Your task to perform on an android device: read, delete, or share a saved page in the chrome app Image 0: 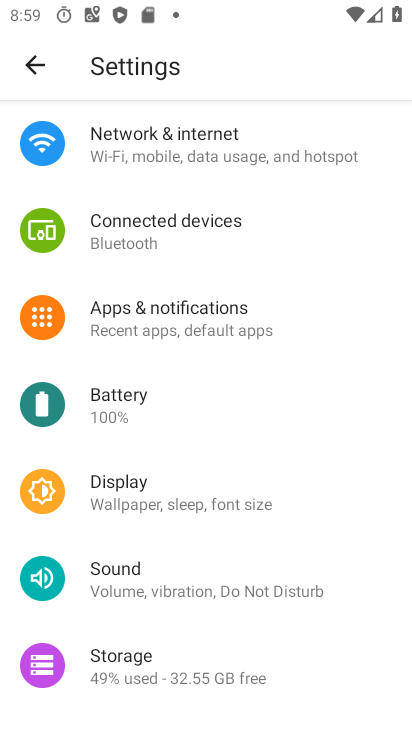
Step 0: press home button
Your task to perform on an android device: read, delete, or share a saved page in the chrome app Image 1: 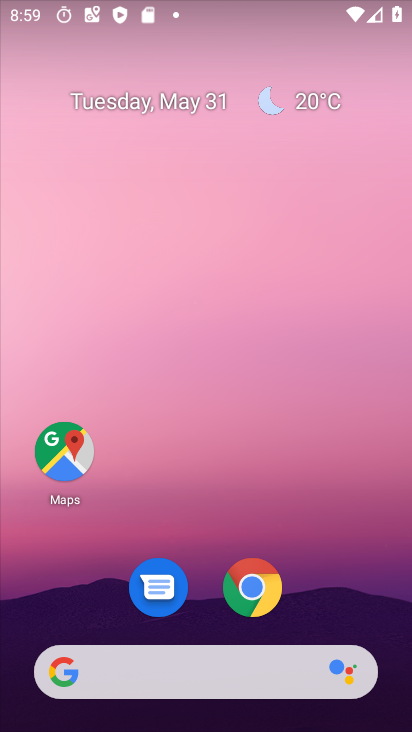
Step 1: click (249, 592)
Your task to perform on an android device: read, delete, or share a saved page in the chrome app Image 2: 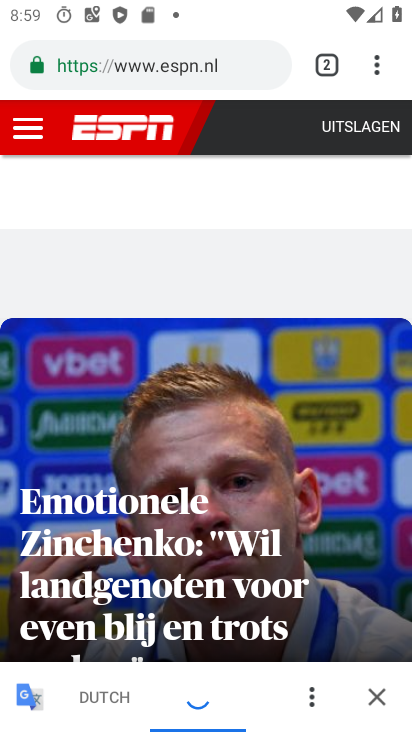
Step 2: click (387, 70)
Your task to perform on an android device: read, delete, or share a saved page in the chrome app Image 3: 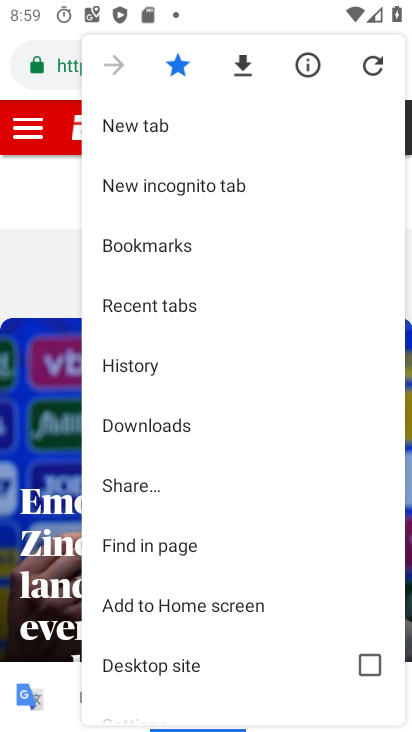
Step 3: drag from (124, 672) to (150, 196)
Your task to perform on an android device: read, delete, or share a saved page in the chrome app Image 4: 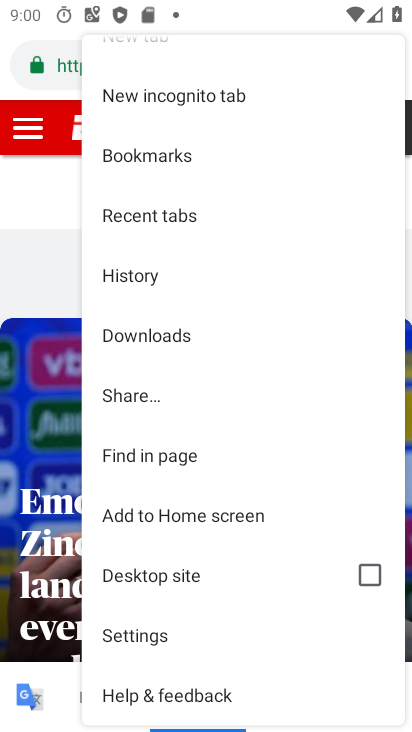
Step 4: click (164, 338)
Your task to perform on an android device: read, delete, or share a saved page in the chrome app Image 5: 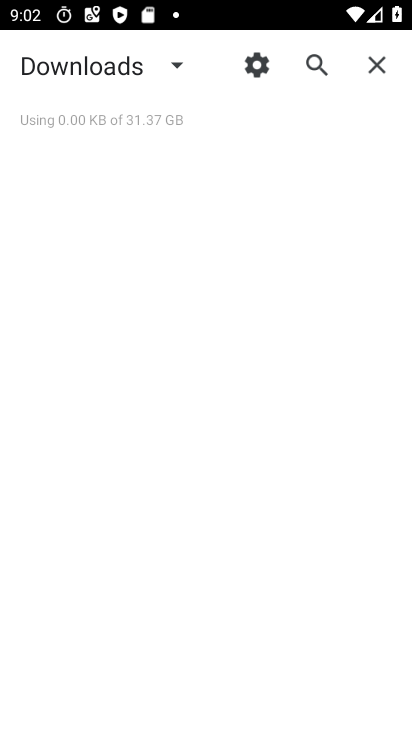
Step 5: task complete